Your task to perform on an android device: Open calendar and show me the first week of next month Image 0: 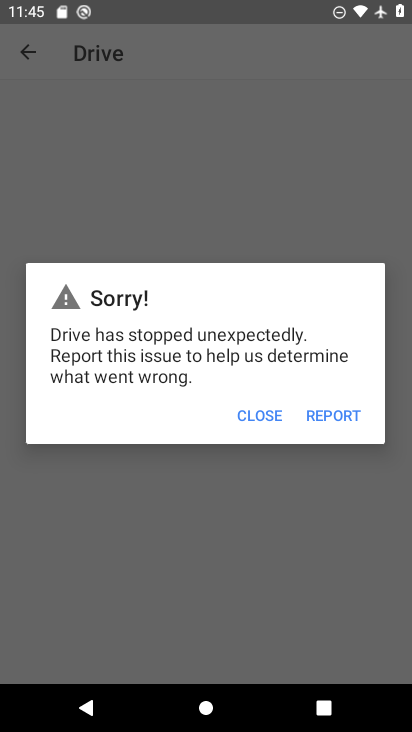
Step 0: press home button
Your task to perform on an android device: Open calendar and show me the first week of next month Image 1: 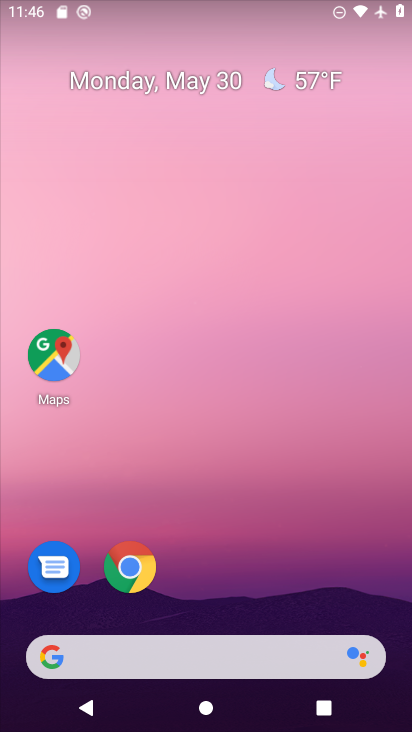
Step 1: drag from (224, 597) to (216, 129)
Your task to perform on an android device: Open calendar and show me the first week of next month Image 2: 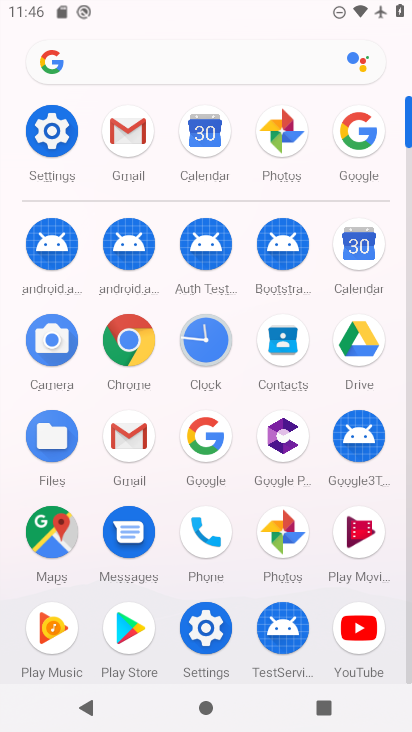
Step 2: click (210, 145)
Your task to perform on an android device: Open calendar and show me the first week of next month Image 3: 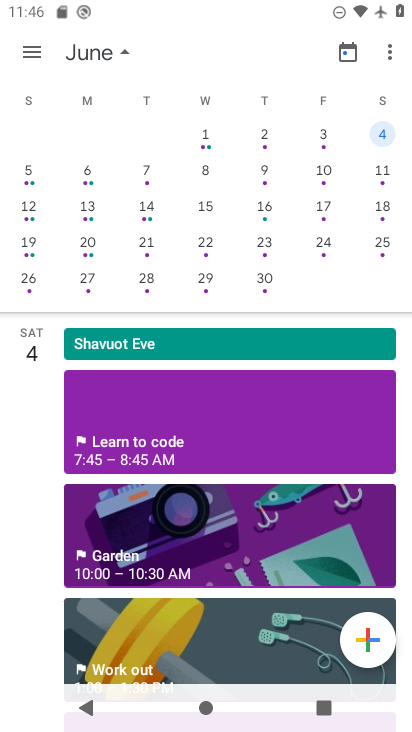
Step 3: click (313, 224)
Your task to perform on an android device: Open calendar and show me the first week of next month Image 4: 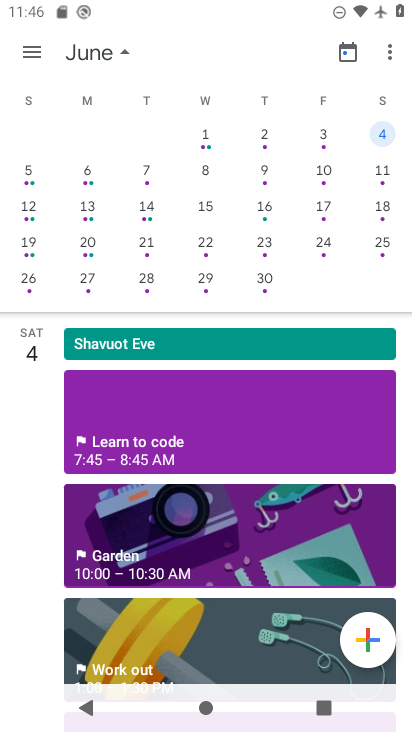
Step 4: click (211, 126)
Your task to perform on an android device: Open calendar and show me the first week of next month Image 5: 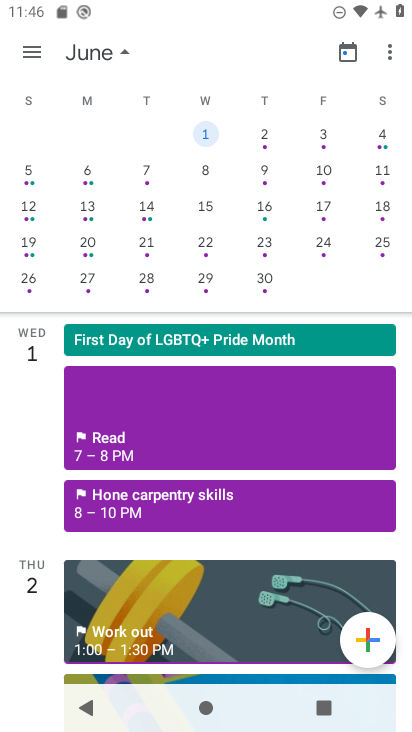
Step 5: click (202, 136)
Your task to perform on an android device: Open calendar and show me the first week of next month Image 6: 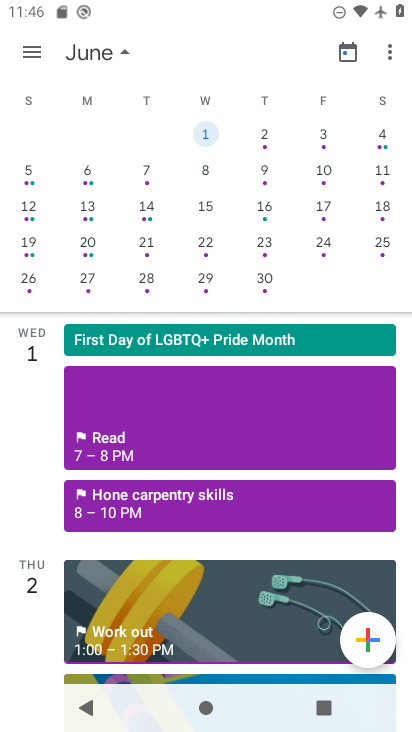
Step 6: task complete